Your task to perform on an android device: empty trash in the gmail app Image 0: 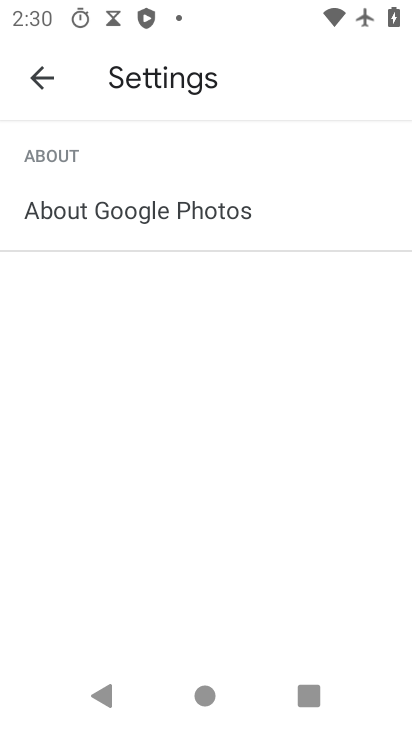
Step 0: drag from (269, 606) to (90, 36)
Your task to perform on an android device: empty trash in the gmail app Image 1: 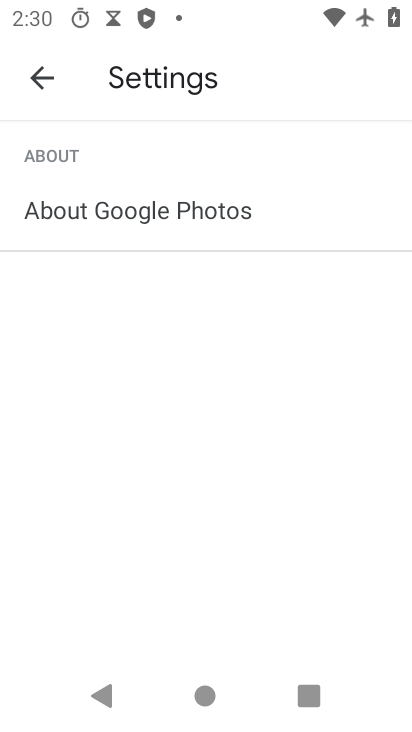
Step 1: click (37, 66)
Your task to perform on an android device: empty trash in the gmail app Image 2: 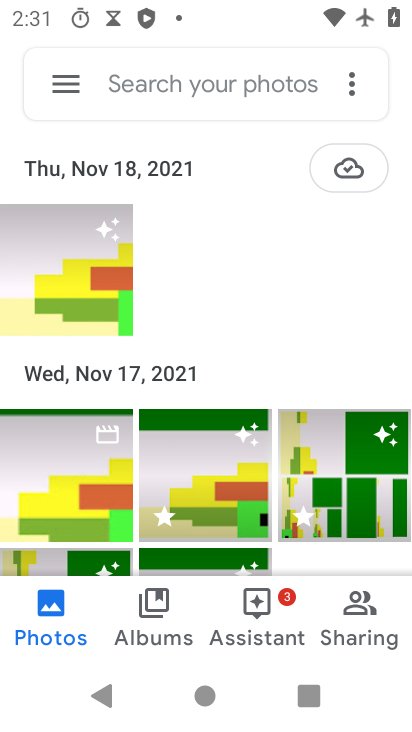
Step 2: press home button
Your task to perform on an android device: empty trash in the gmail app Image 3: 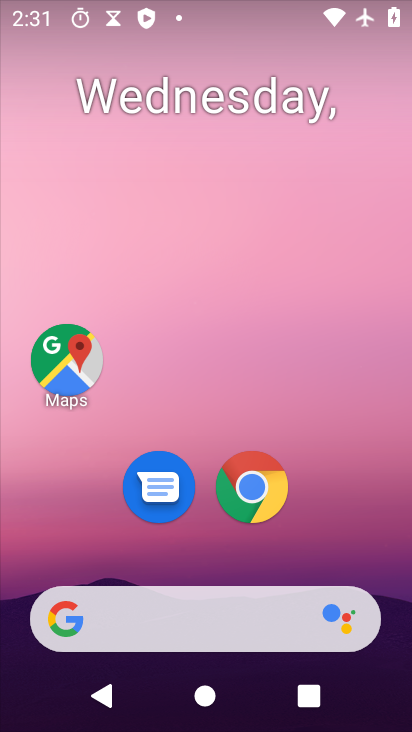
Step 3: drag from (243, 681) to (228, 108)
Your task to perform on an android device: empty trash in the gmail app Image 4: 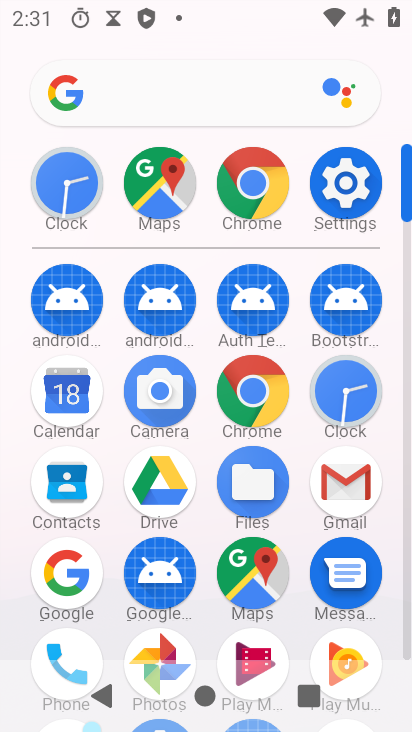
Step 4: click (341, 484)
Your task to perform on an android device: empty trash in the gmail app Image 5: 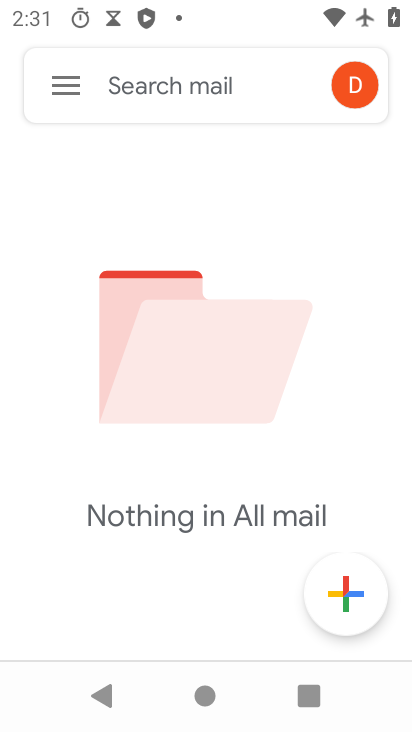
Step 5: task complete